Your task to perform on an android device: set default search engine in the chrome app Image 0: 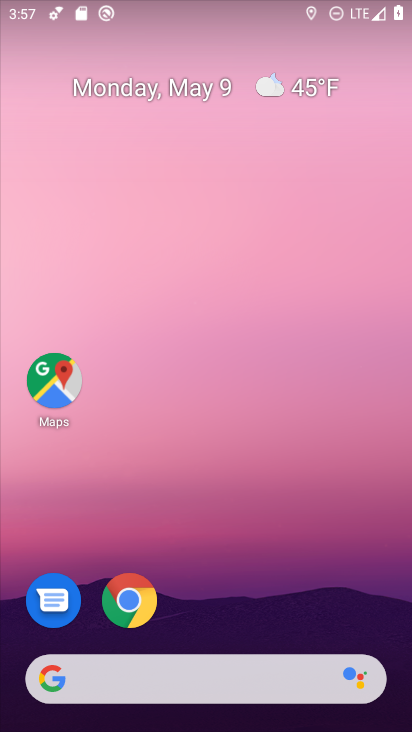
Step 0: click (141, 597)
Your task to perform on an android device: set default search engine in the chrome app Image 1: 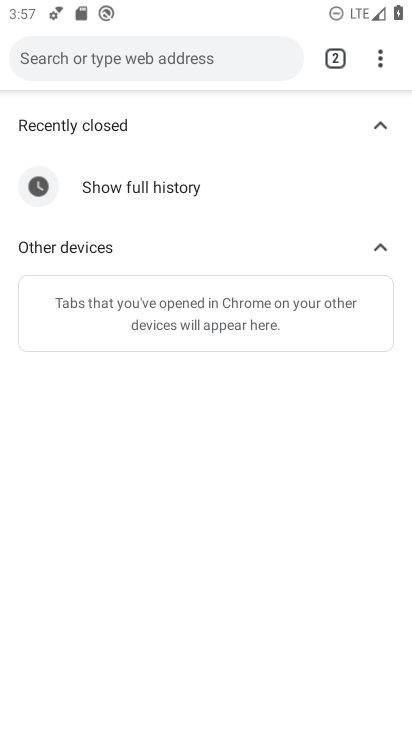
Step 1: press home button
Your task to perform on an android device: set default search engine in the chrome app Image 2: 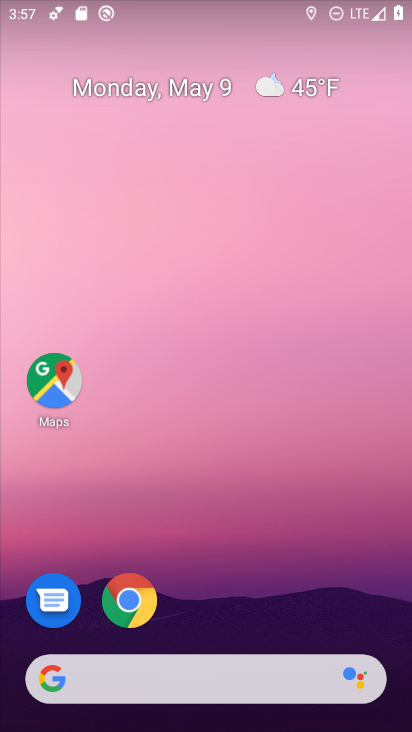
Step 2: click (120, 610)
Your task to perform on an android device: set default search engine in the chrome app Image 3: 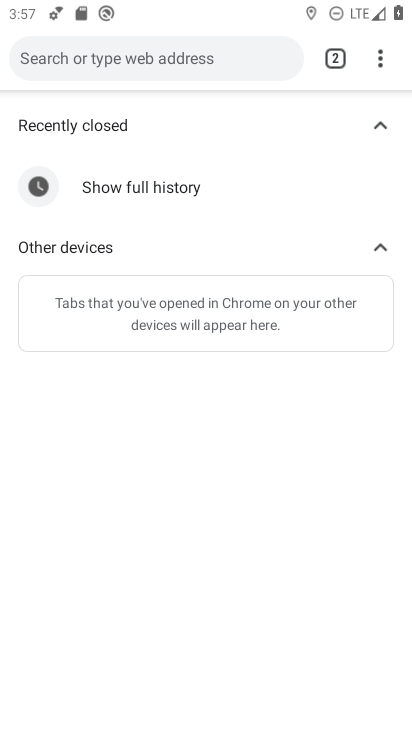
Step 3: click (377, 61)
Your task to perform on an android device: set default search engine in the chrome app Image 4: 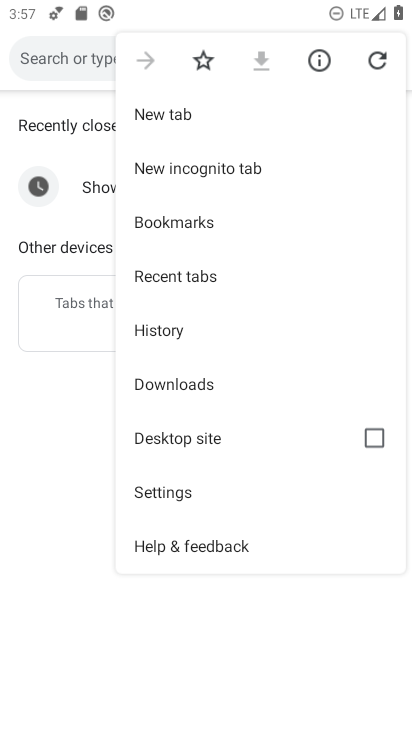
Step 4: click (171, 503)
Your task to perform on an android device: set default search engine in the chrome app Image 5: 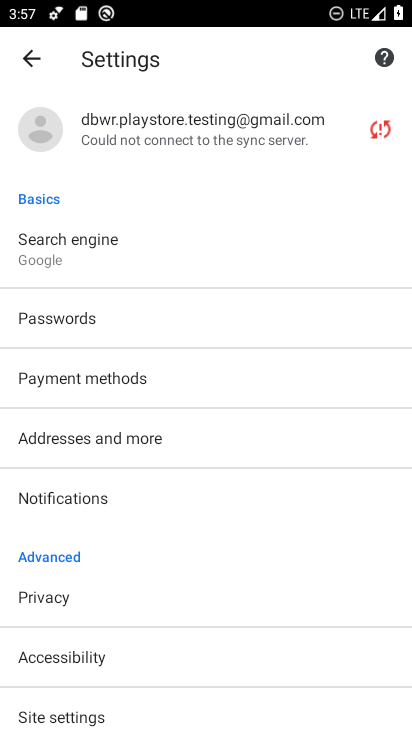
Step 5: click (94, 262)
Your task to perform on an android device: set default search engine in the chrome app Image 6: 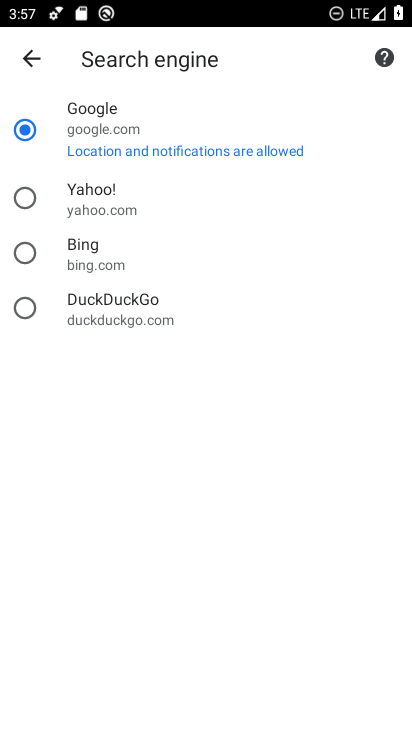
Step 6: task complete